Your task to perform on an android device: turn on notifications settings in the gmail app Image 0: 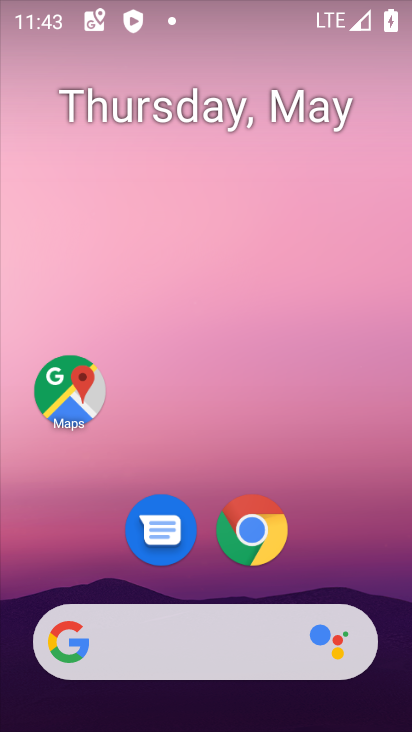
Step 0: drag from (255, 601) to (241, 22)
Your task to perform on an android device: turn on notifications settings in the gmail app Image 1: 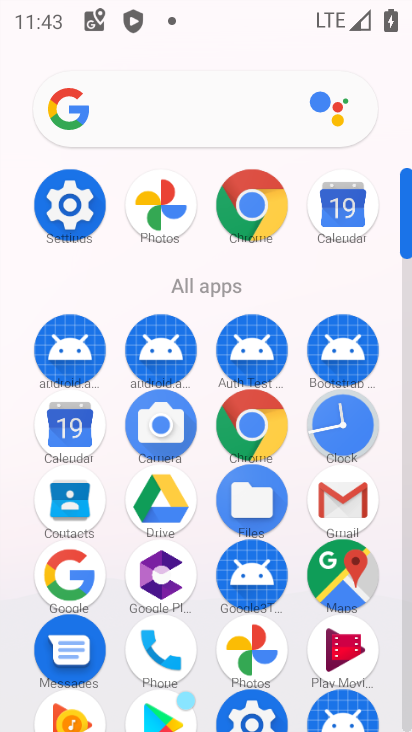
Step 1: click (357, 501)
Your task to perform on an android device: turn on notifications settings in the gmail app Image 2: 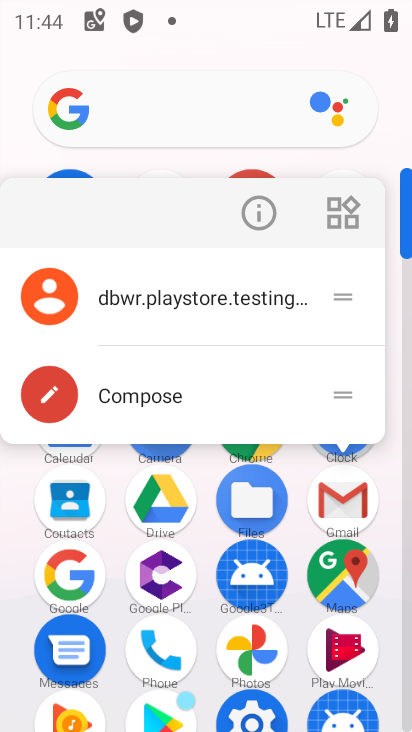
Step 2: click (272, 208)
Your task to perform on an android device: turn on notifications settings in the gmail app Image 3: 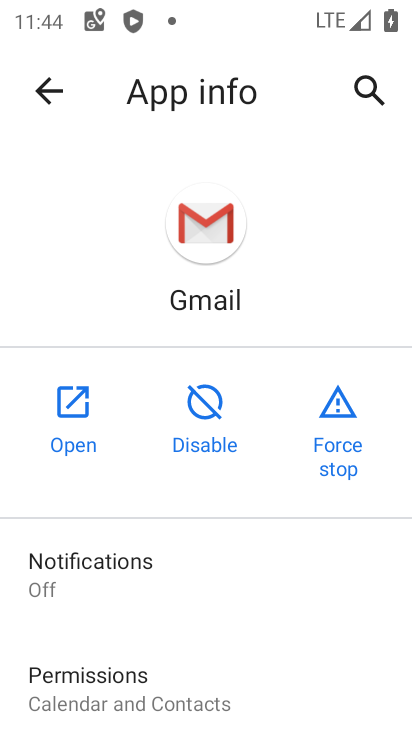
Step 3: click (143, 572)
Your task to perform on an android device: turn on notifications settings in the gmail app Image 4: 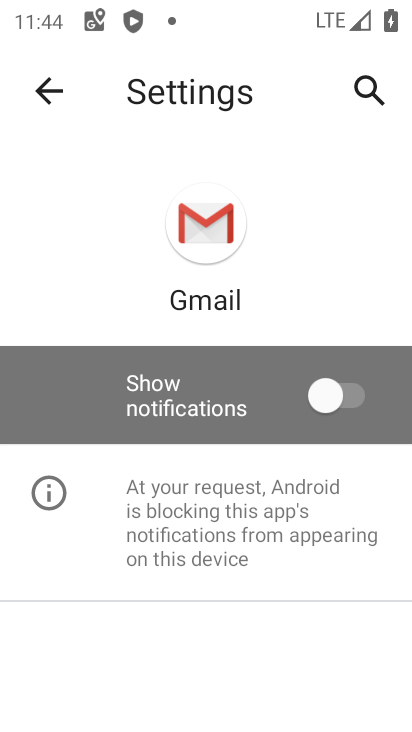
Step 4: click (329, 376)
Your task to perform on an android device: turn on notifications settings in the gmail app Image 5: 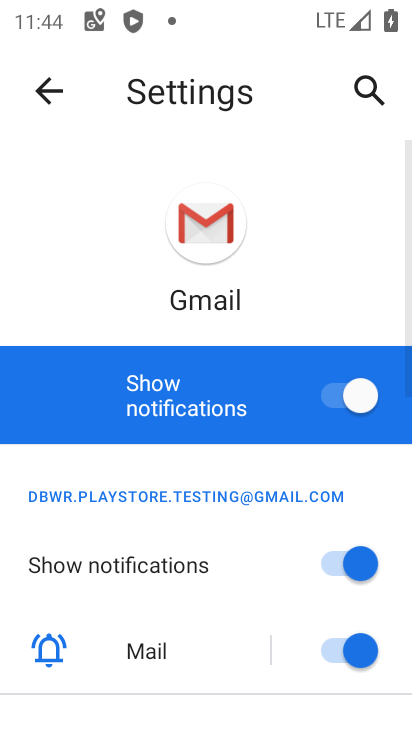
Step 5: task complete